Your task to perform on an android device: change the clock display to show seconds Image 0: 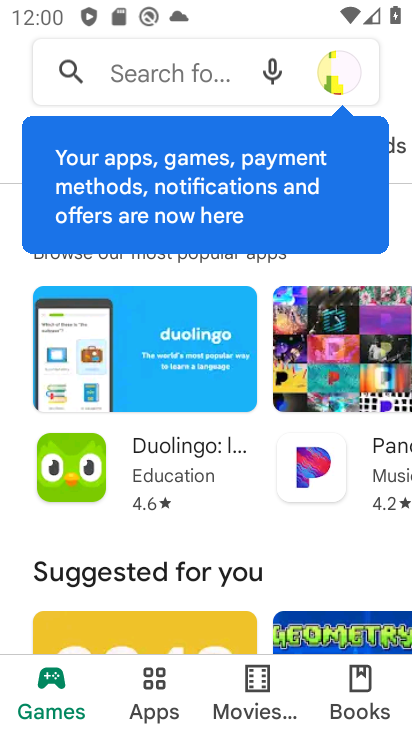
Step 0: press home button
Your task to perform on an android device: change the clock display to show seconds Image 1: 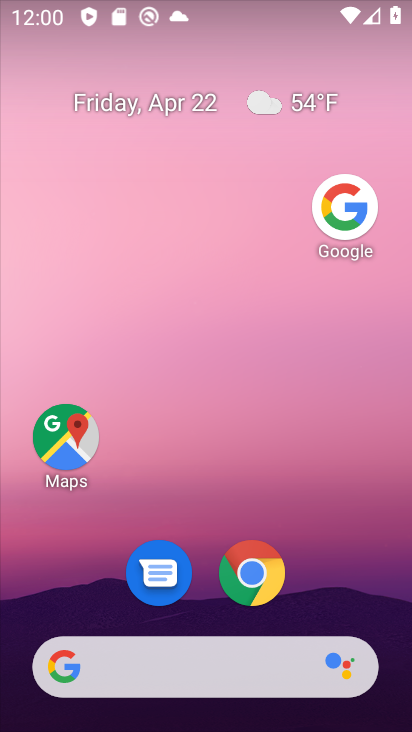
Step 1: drag from (164, 665) to (365, 29)
Your task to perform on an android device: change the clock display to show seconds Image 2: 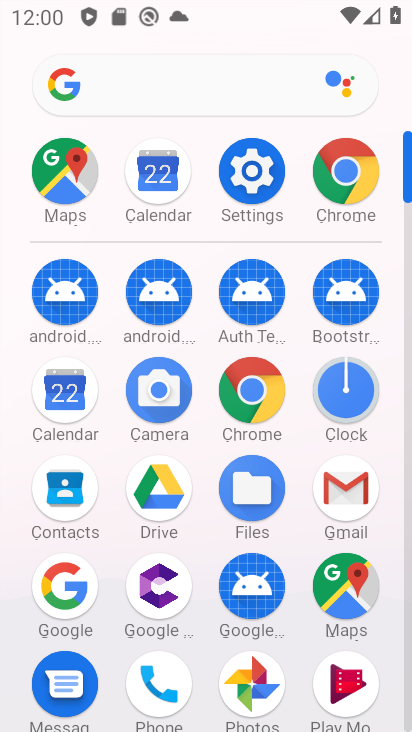
Step 2: click (355, 391)
Your task to perform on an android device: change the clock display to show seconds Image 3: 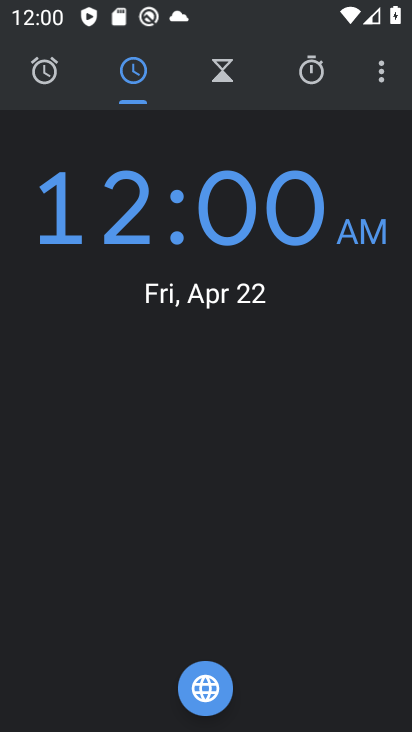
Step 3: click (383, 76)
Your task to perform on an android device: change the clock display to show seconds Image 4: 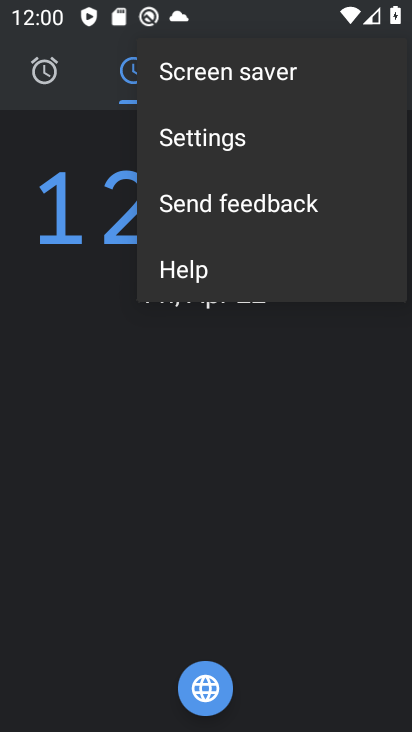
Step 4: click (244, 147)
Your task to perform on an android device: change the clock display to show seconds Image 5: 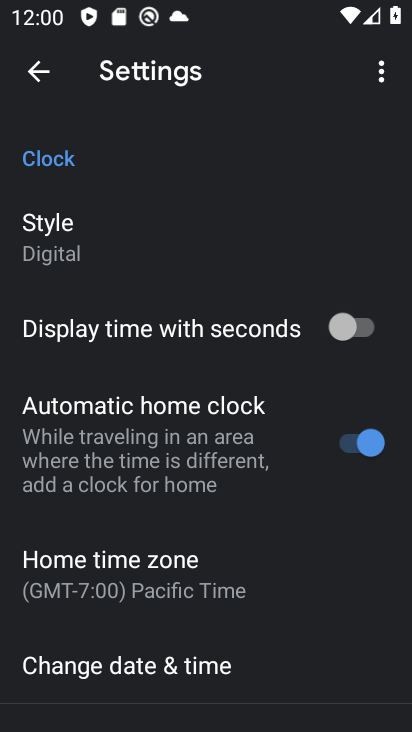
Step 5: click (361, 332)
Your task to perform on an android device: change the clock display to show seconds Image 6: 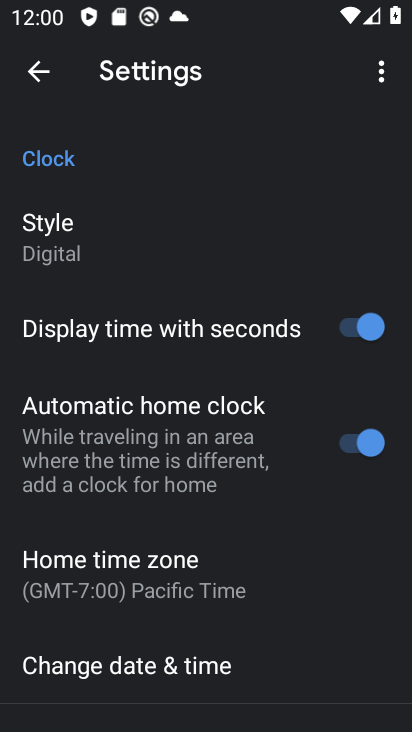
Step 6: task complete